Your task to perform on an android device: Open calendar and show me the third week of next month Image 0: 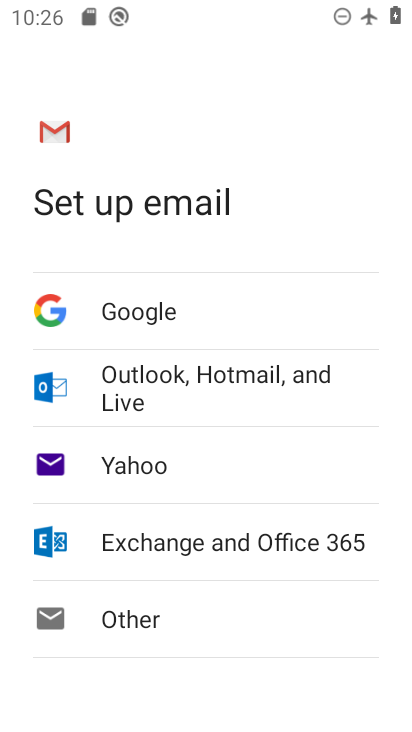
Step 0: press home button
Your task to perform on an android device: Open calendar and show me the third week of next month Image 1: 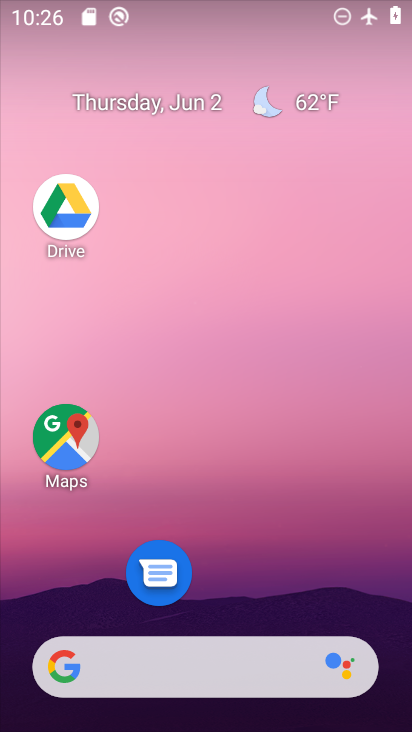
Step 1: drag from (213, 619) to (110, 15)
Your task to perform on an android device: Open calendar and show me the third week of next month Image 2: 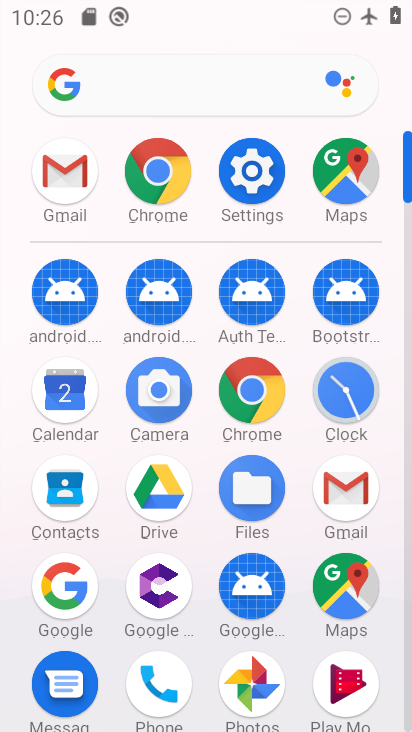
Step 2: click (85, 397)
Your task to perform on an android device: Open calendar and show me the third week of next month Image 3: 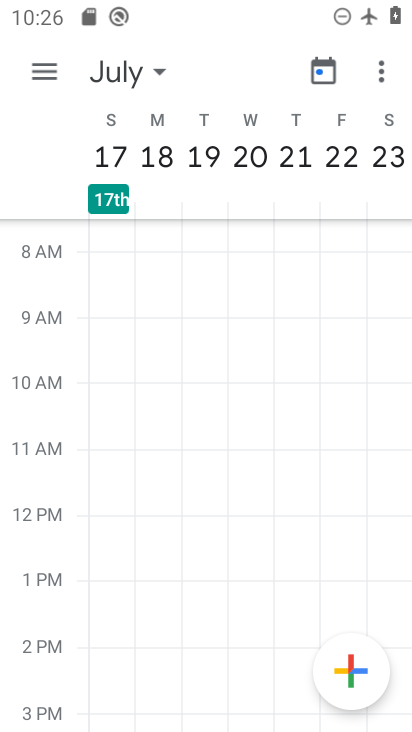
Step 3: task complete